Your task to perform on an android device: toggle translation in the chrome app Image 0: 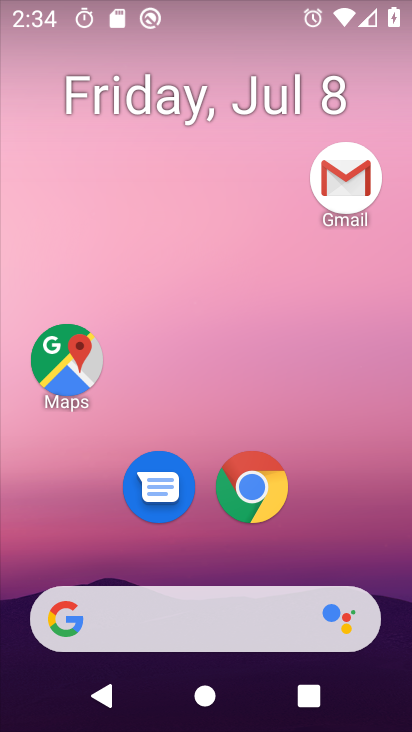
Step 0: drag from (371, 524) to (381, 187)
Your task to perform on an android device: toggle translation in the chrome app Image 1: 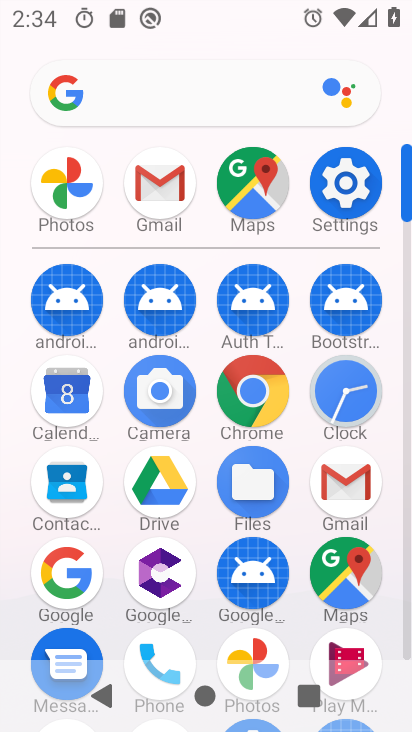
Step 1: click (258, 380)
Your task to perform on an android device: toggle translation in the chrome app Image 2: 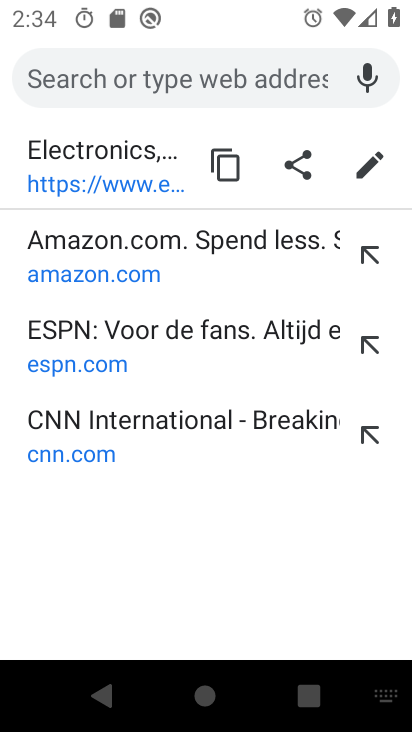
Step 2: press back button
Your task to perform on an android device: toggle translation in the chrome app Image 3: 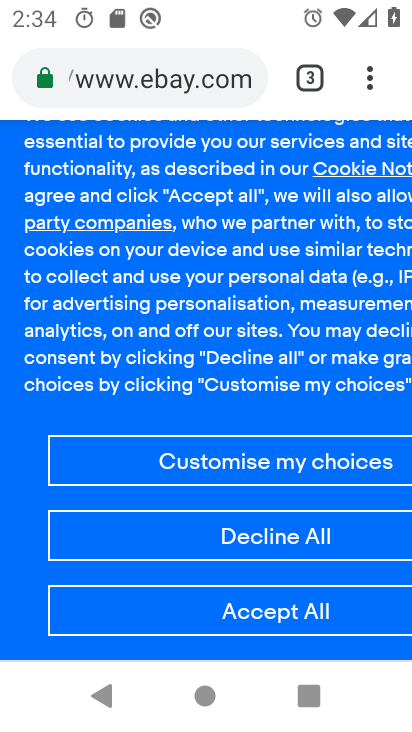
Step 3: click (371, 90)
Your task to perform on an android device: toggle translation in the chrome app Image 4: 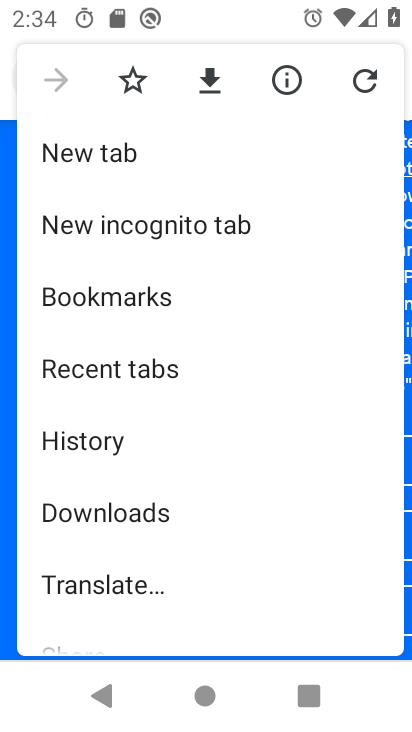
Step 4: drag from (316, 440) to (315, 317)
Your task to perform on an android device: toggle translation in the chrome app Image 5: 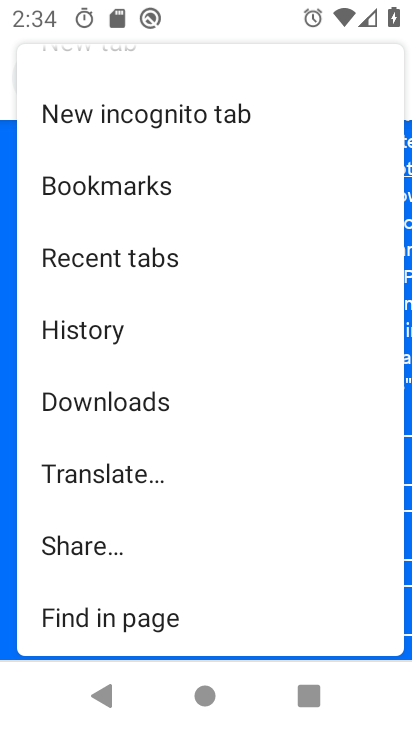
Step 5: drag from (311, 461) to (325, 324)
Your task to perform on an android device: toggle translation in the chrome app Image 6: 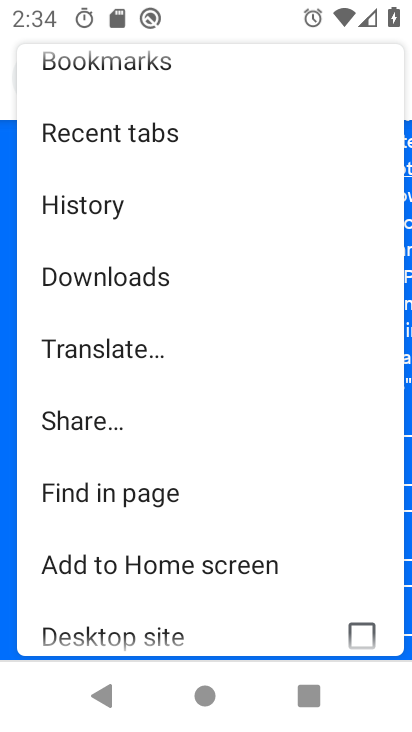
Step 6: drag from (336, 496) to (329, 286)
Your task to perform on an android device: toggle translation in the chrome app Image 7: 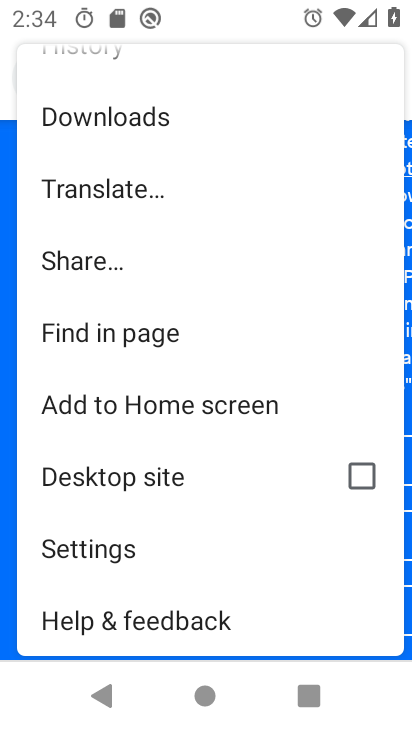
Step 7: drag from (296, 523) to (301, 345)
Your task to perform on an android device: toggle translation in the chrome app Image 8: 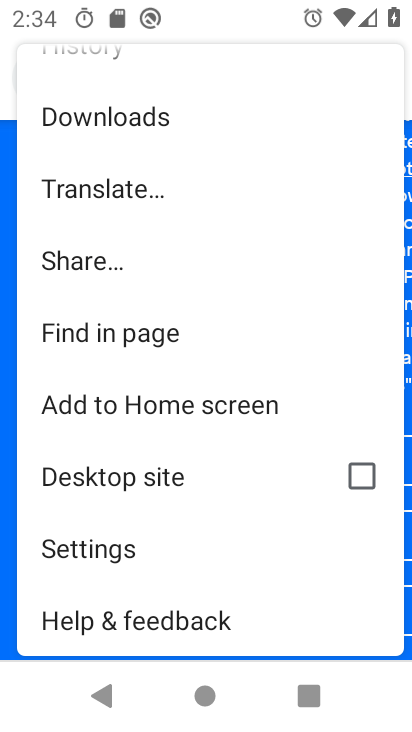
Step 8: click (158, 543)
Your task to perform on an android device: toggle translation in the chrome app Image 9: 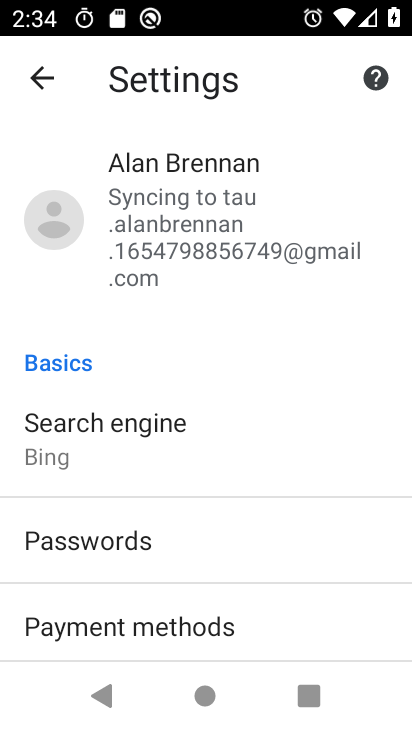
Step 9: drag from (318, 573) to (327, 379)
Your task to perform on an android device: toggle translation in the chrome app Image 10: 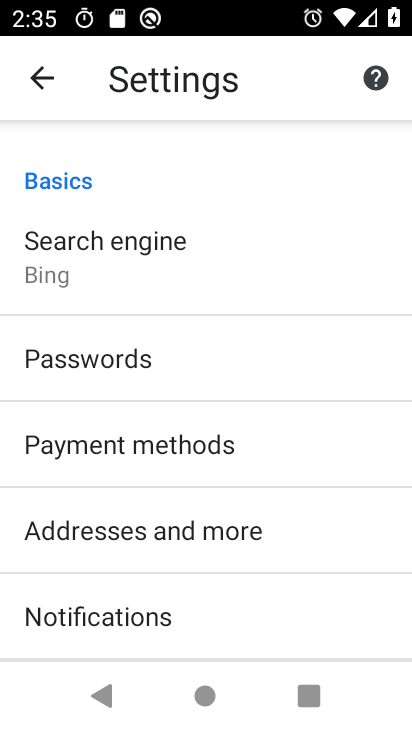
Step 10: drag from (317, 611) to (321, 448)
Your task to perform on an android device: toggle translation in the chrome app Image 11: 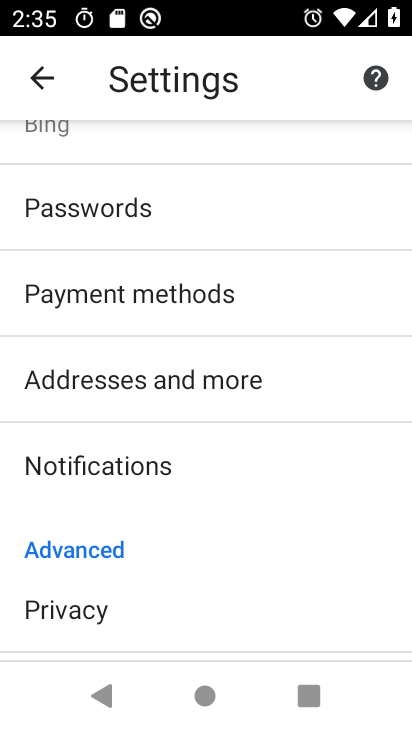
Step 11: drag from (324, 558) to (360, 333)
Your task to perform on an android device: toggle translation in the chrome app Image 12: 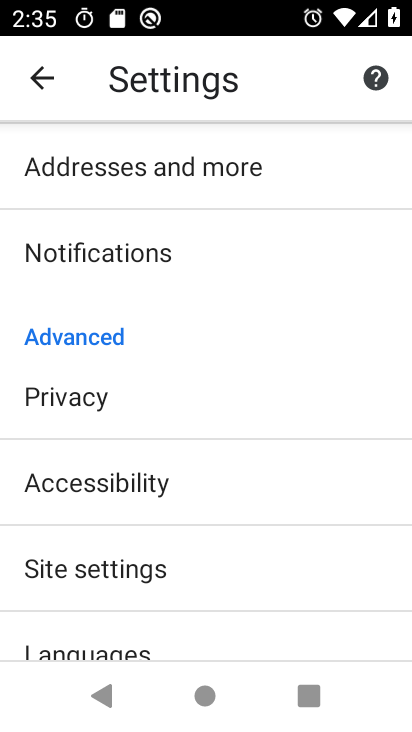
Step 12: drag from (307, 507) to (292, 361)
Your task to perform on an android device: toggle translation in the chrome app Image 13: 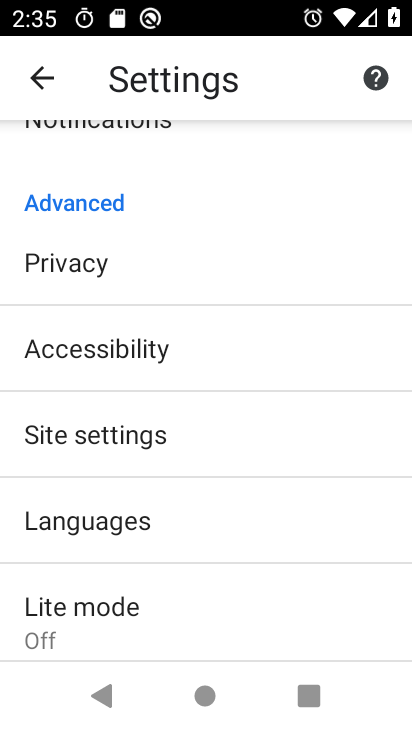
Step 13: drag from (288, 528) to (276, 393)
Your task to perform on an android device: toggle translation in the chrome app Image 14: 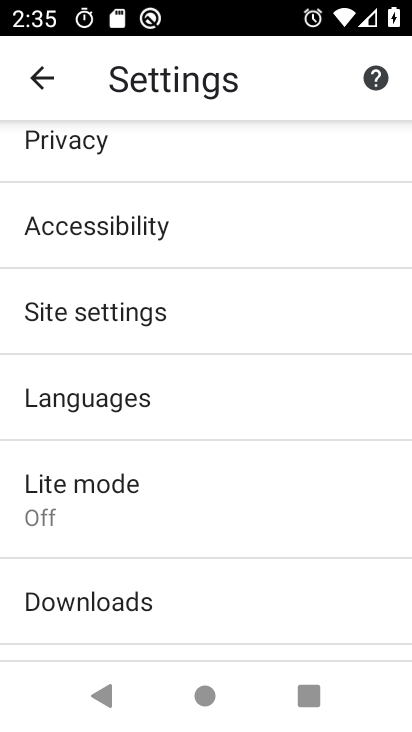
Step 14: click (264, 407)
Your task to perform on an android device: toggle translation in the chrome app Image 15: 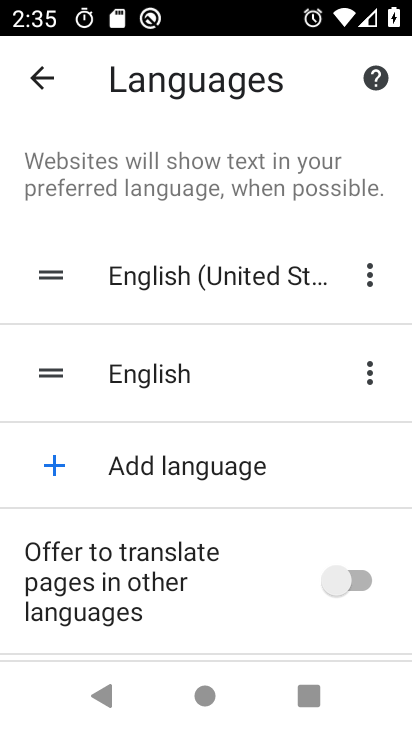
Step 15: click (333, 595)
Your task to perform on an android device: toggle translation in the chrome app Image 16: 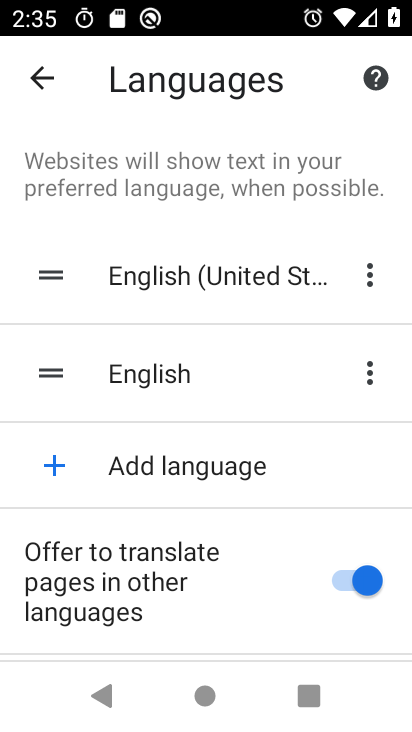
Step 16: task complete